Your task to perform on an android device: open device folders in google photos Image 0: 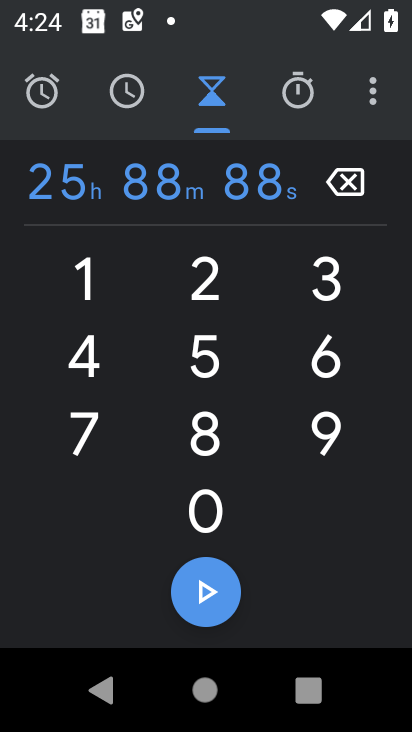
Step 0: press home button
Your task to perform on an android device: open device folders in google photos Image 1: 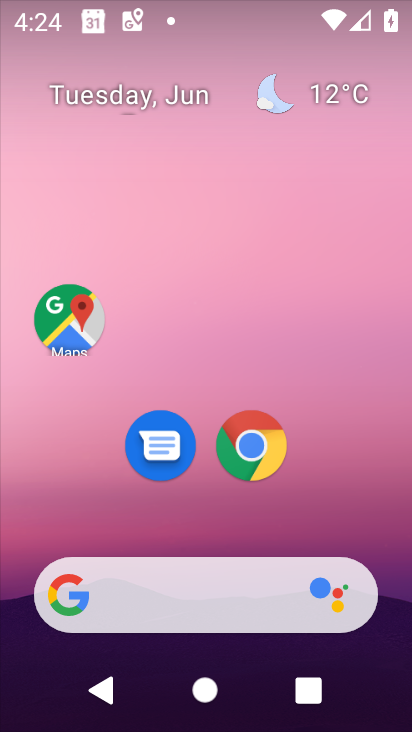
Step 1: drag from (361, 447) to (388, 7)
Your task to perform on an android device: open device folders in google photos Image 2: 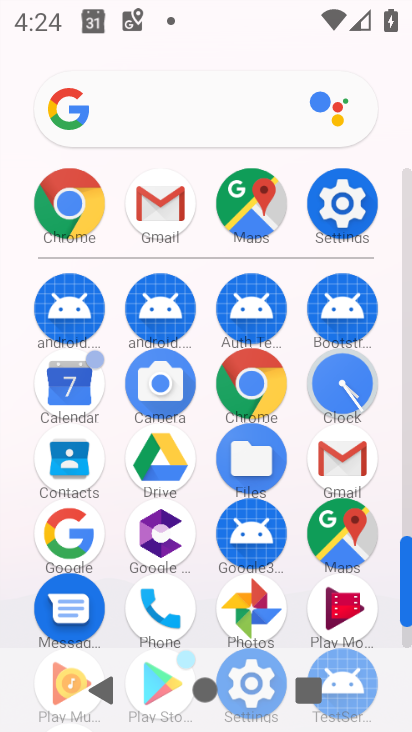
Step 2: click (255, 596)
Your task to perform on an android device: open device folders in google photos Image 3: 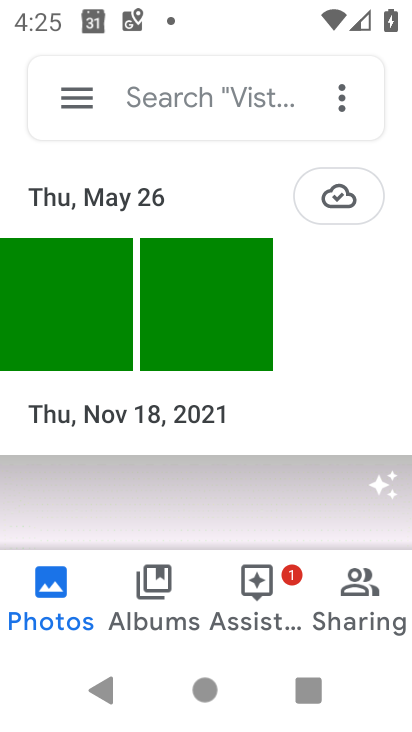
Step 3: click (75, 82)
Your task to perform on an android device: open device folders in google photos Image 4: 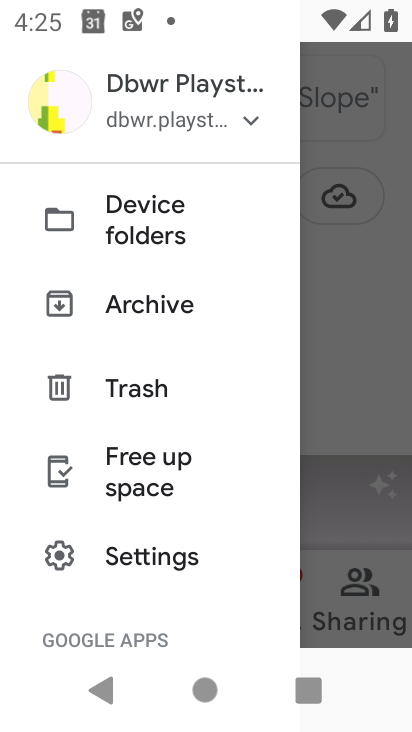
Step 4: click (175, 222)
Your task to perform on an android device: open device folders in google photos Image 5: 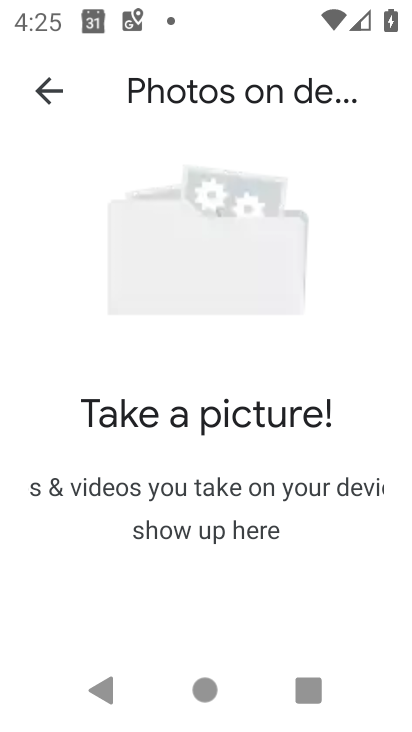
Step 5: task complete